Your task to perform on an android device: open app "McDonald's" (install if not already installed) Image 0: 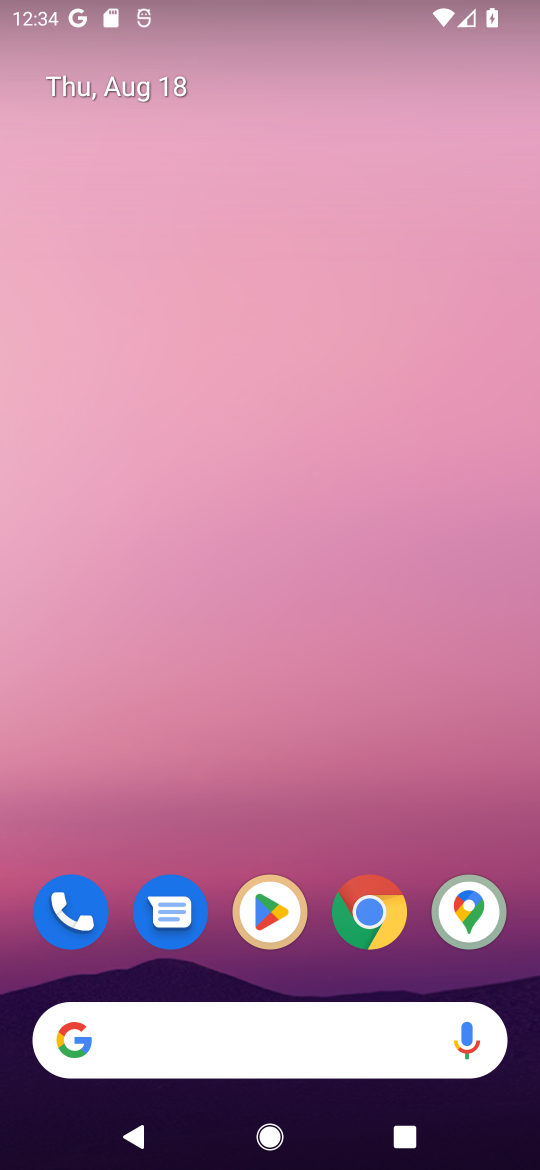
Step 0: click (284, 909)
Your task to perform on an android device: open app "McDonald's" (install if not already installed) Image 1: 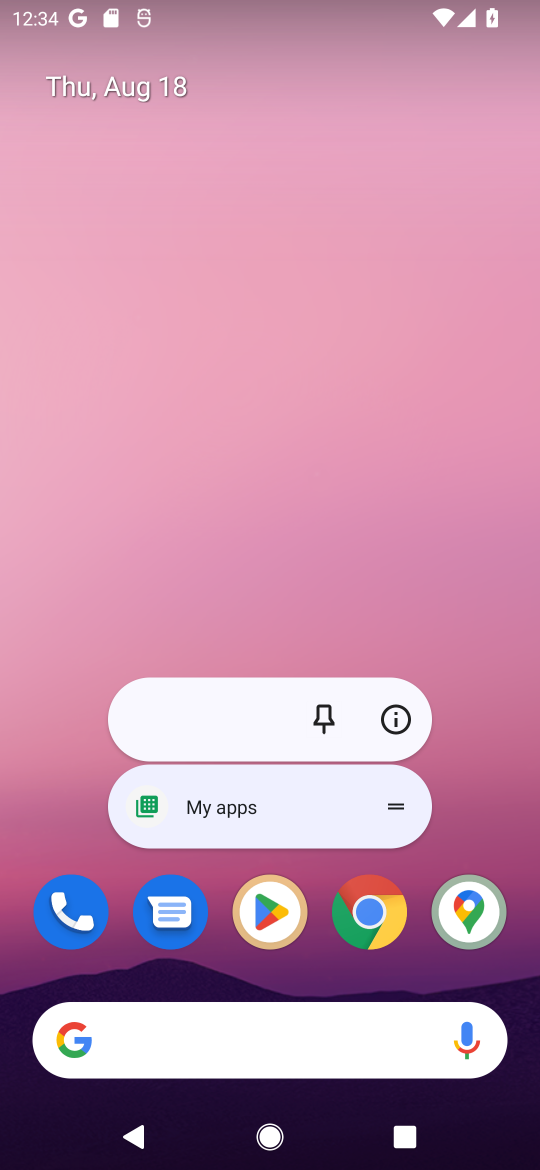
Step 1: click (278, 908)
Your task to perform on an android device: open app "McDonald's" (install if not already installed) Image 2: 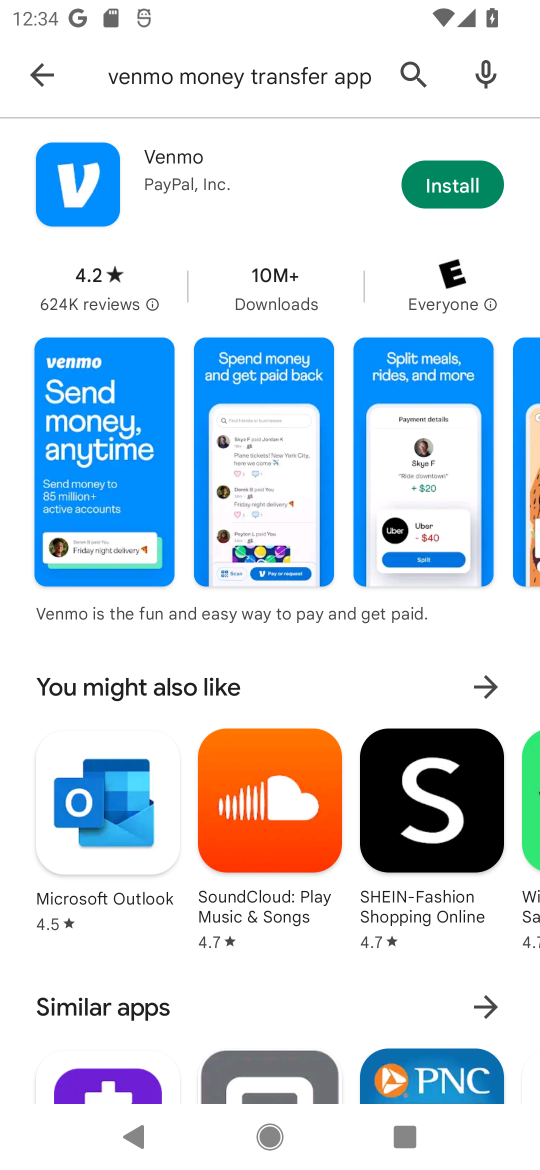
Step 2: click (403, 71)
Your task to perform on an android device: open app "McDonald's" (install if not already installed) Image 3: 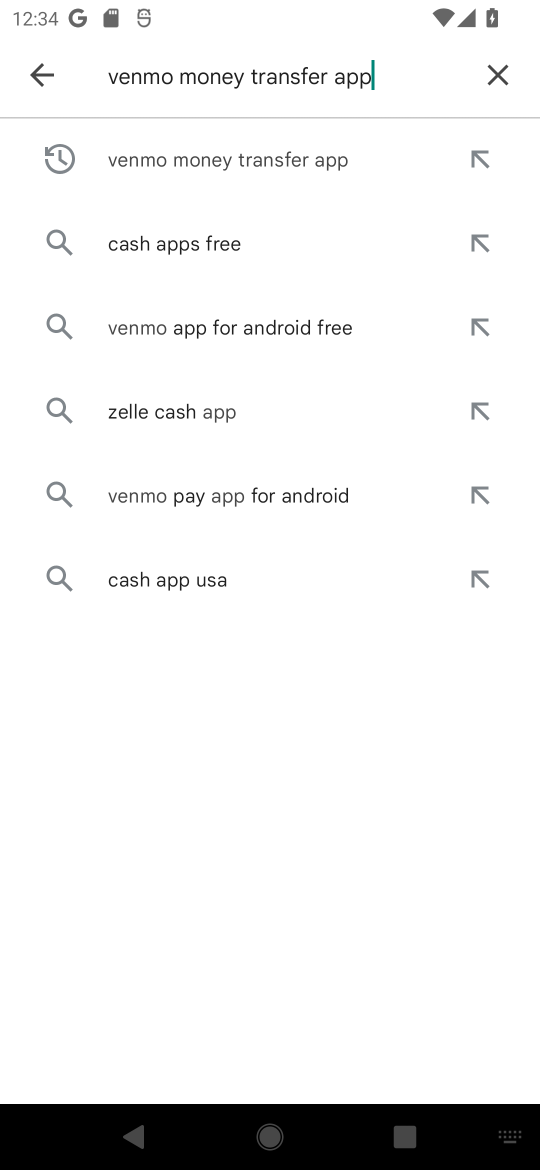
Step 3: click (499, 76)
Your task to perform on an android device: open app "McDonald's" (install if not already installed) Image 4: 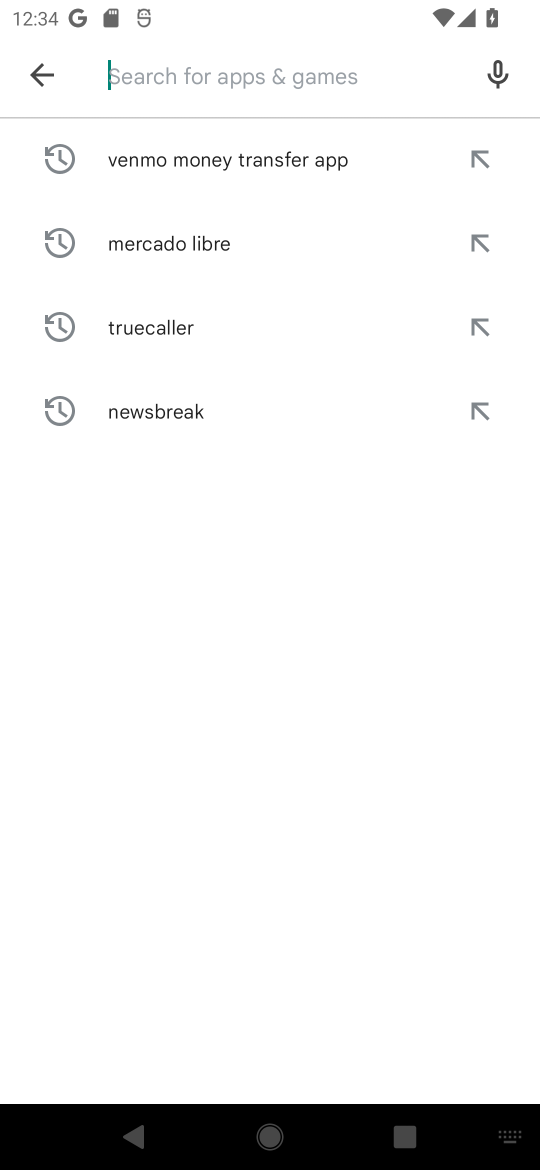
Step 4: click (139, 58)
Your task to perform on an android device: open app "McDonald's" (install if not already installed) Image 5: 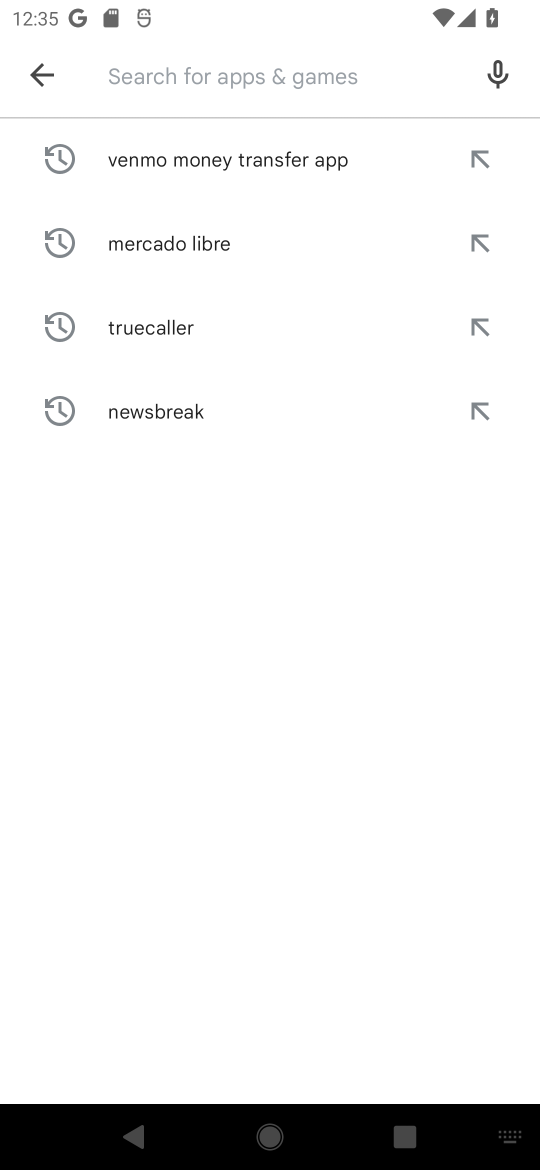
Step 5: type "McDonald's"
Your task to perform on an android device: open app "McDonald's" (install if not already installed) Image 6: 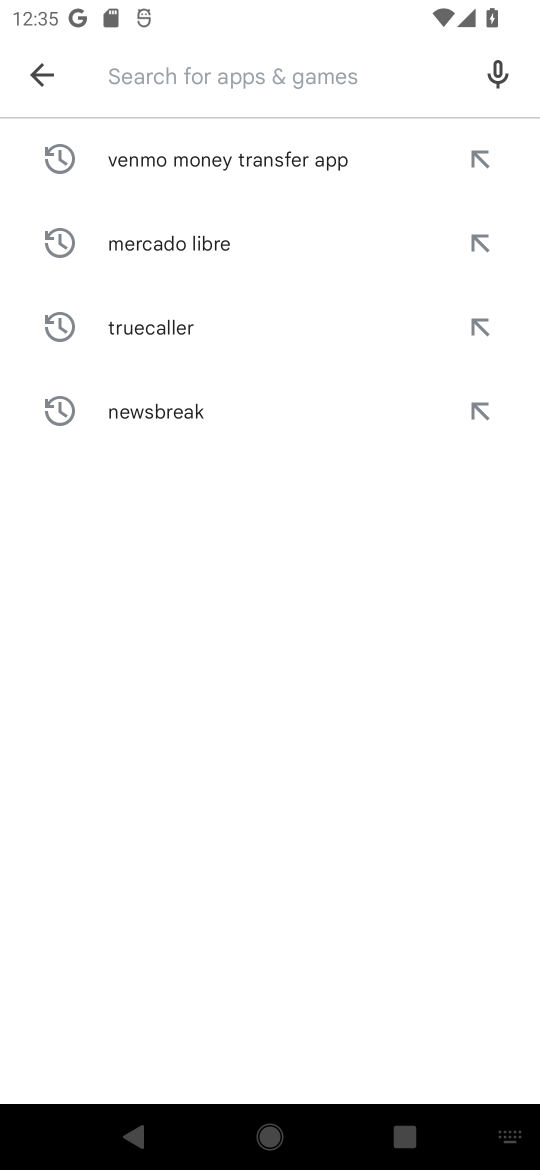
Step 6: click (304, 845)
Your task to perform on an android device: open app "McDonald's" (install if not already installed) Image 7: 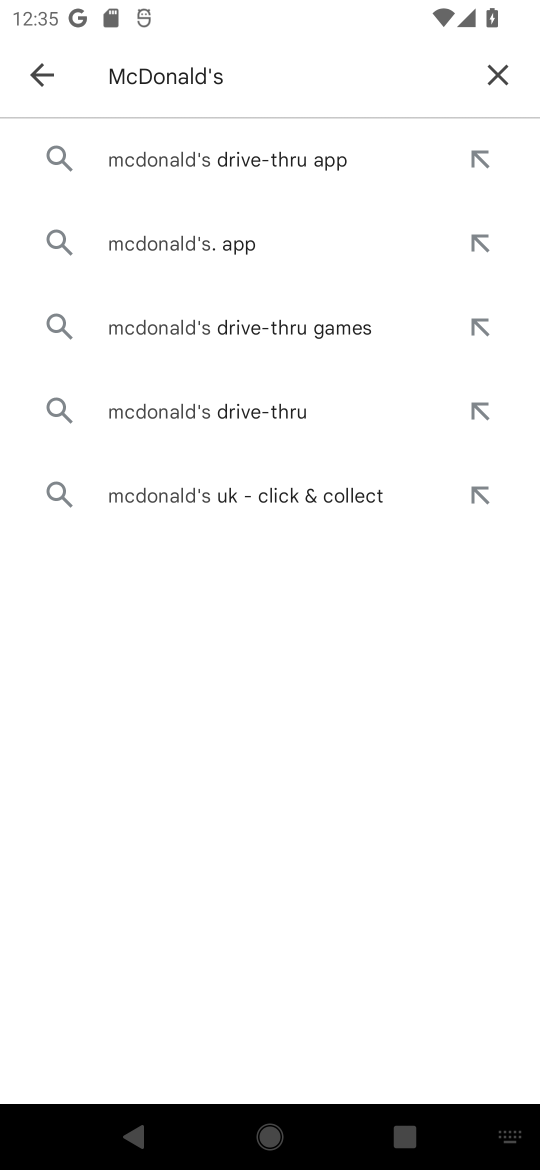
Step 7: click (210, 231)
Your task to perform on an android device: open app "McDonald's" (install if not already installed) Image 8: 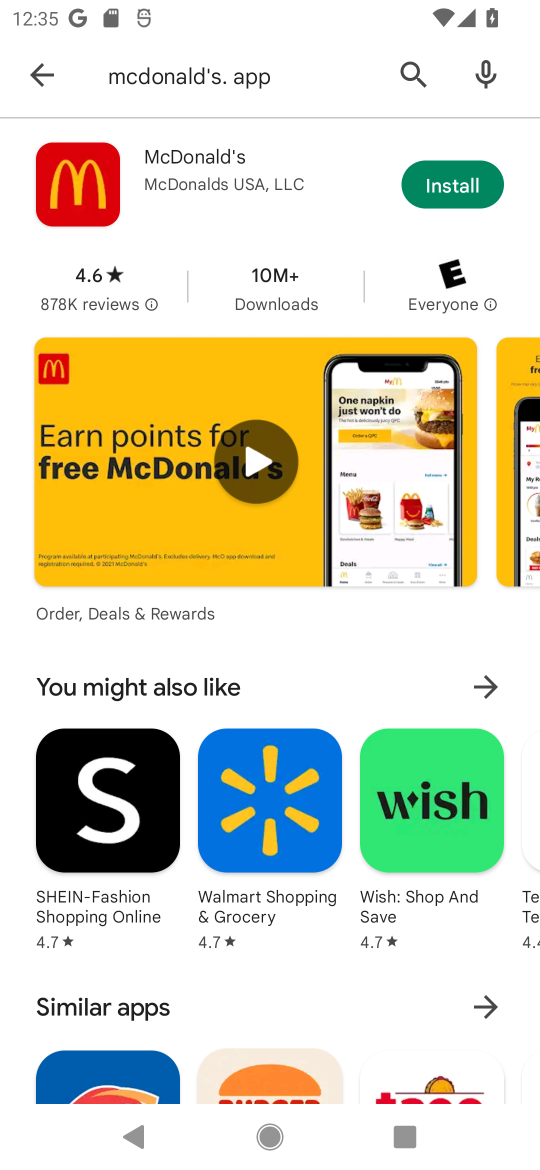
Step 8: click (476, 179)
Your task to perform on an android device: open app "McDonald's" (install if not already installed) Image 9: 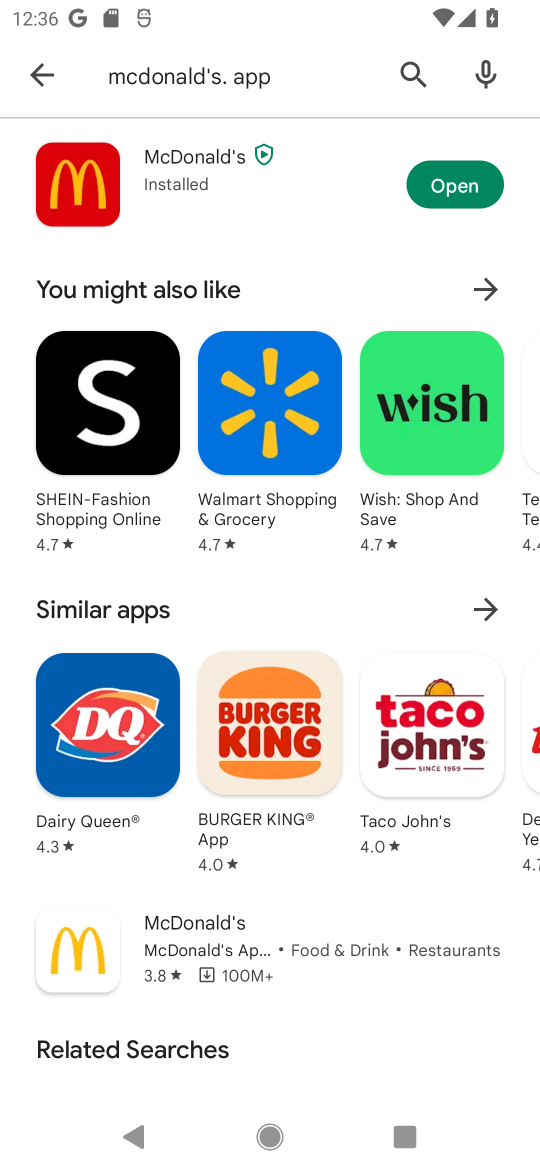
Step 9: click (440, 187)
Your task to perform on an android device: open app "McDonald's" (install if not already installed) Image 10: 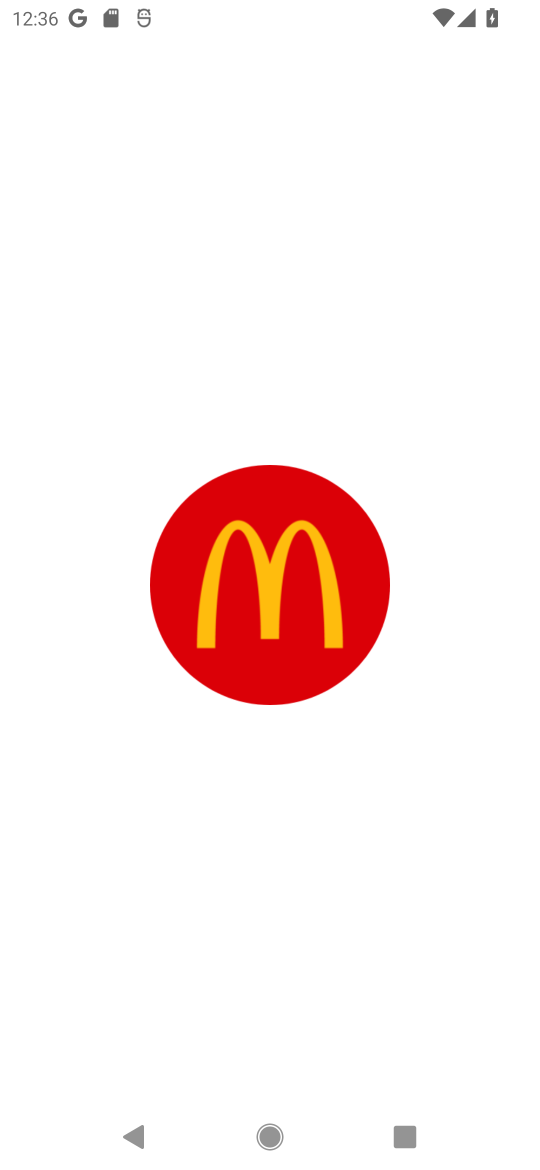
Step 10: task complete